Your task to perform on an android device: Open wifi settings Image 0: 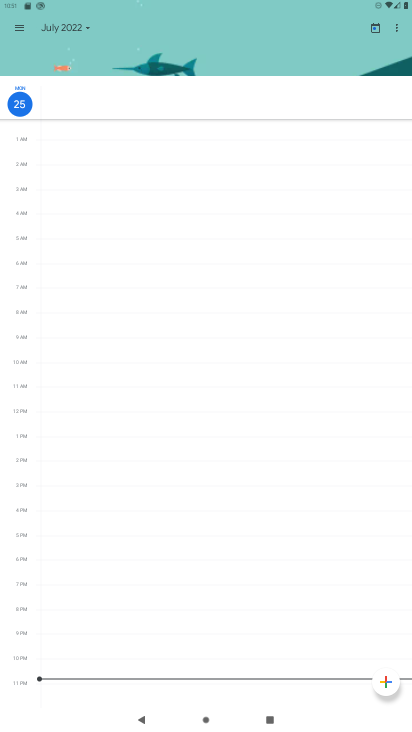
Step 0: press home button
Your task to perform on an android device: Open wifi settings Image 1: 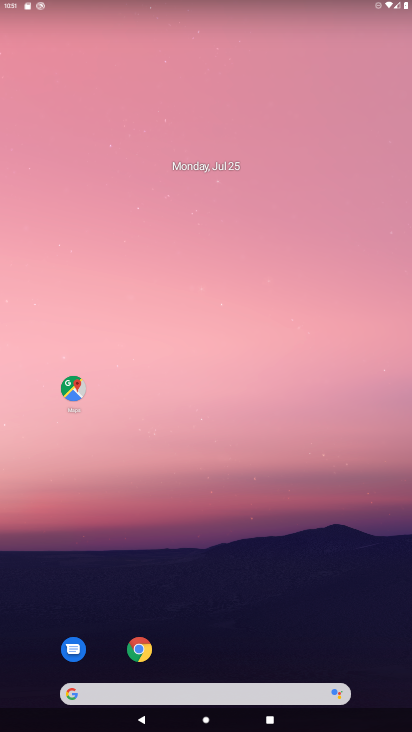
Step 1: drag from (389, 695) to (352, 243)
Your task to perform on an android device: Open wifi settings Image 2: 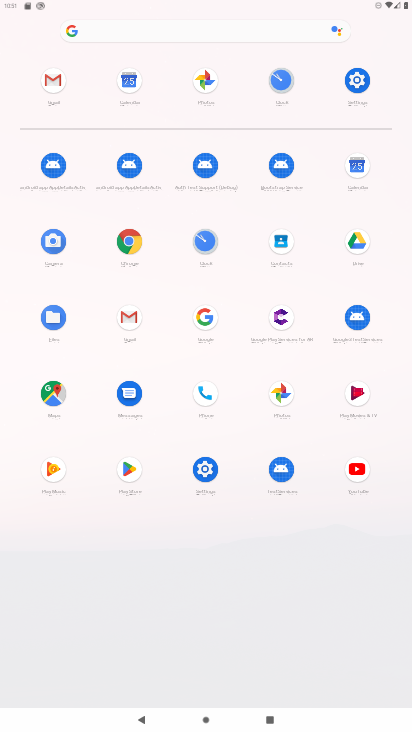
Step 2: click (203, 469)
Your task to perform on an android device: Open wifi settings Image 3: 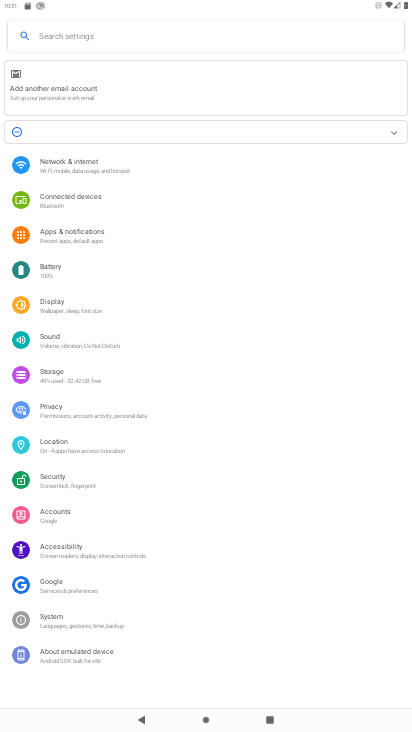
Step 3: click (60, 159)
Your task to perform on an android device: Open wifi settings Image 4: 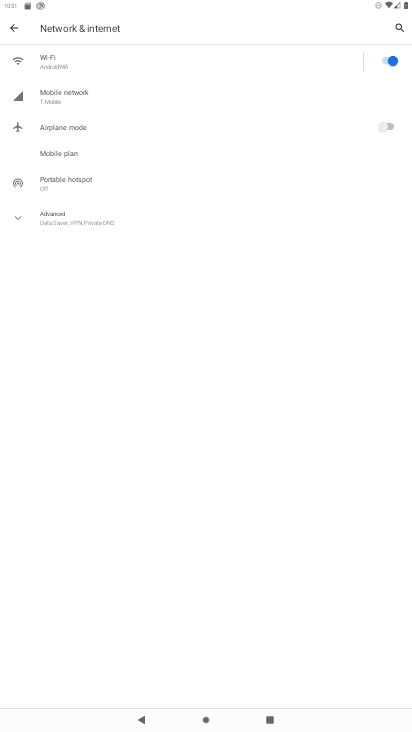
Step 4: click (46, 57)
Your task to perform on an android device: Open wifi settings Image 5: 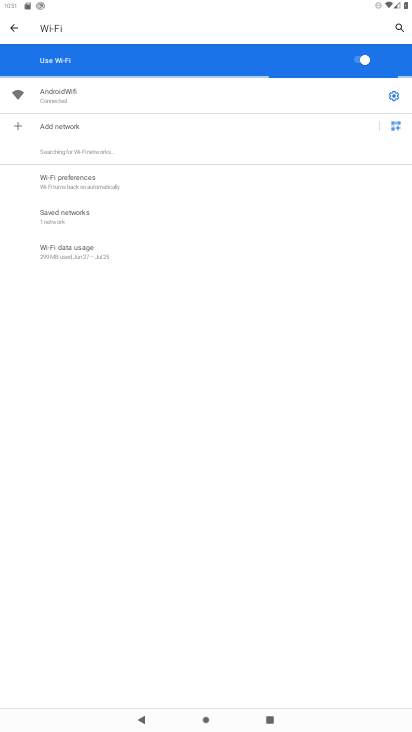
Step 5: click (392, 95)
Your task to perform on an android device: Open wifi settings Image 6: 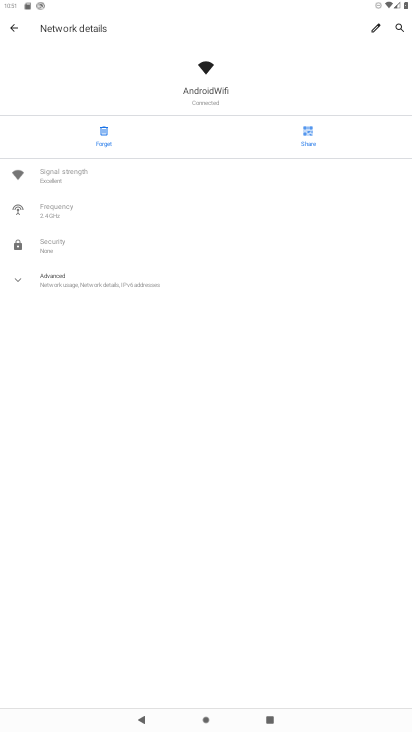
Step 6: task complete